Your task to perform on an android device: all mails in gmail Image 0: 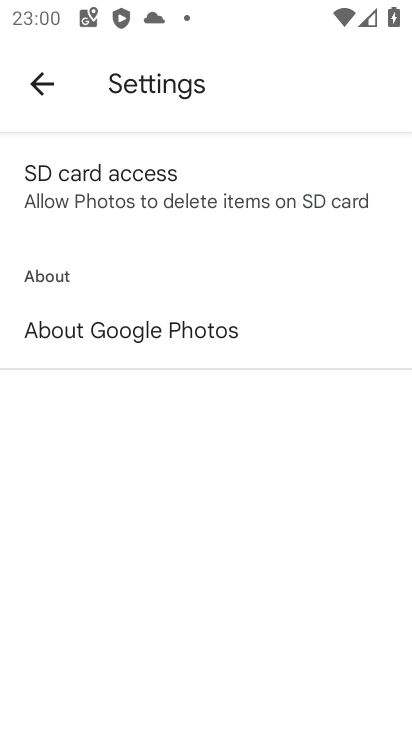
Step 0: press home button
Your task to perform on an android device: all mails in gmail Image 1: 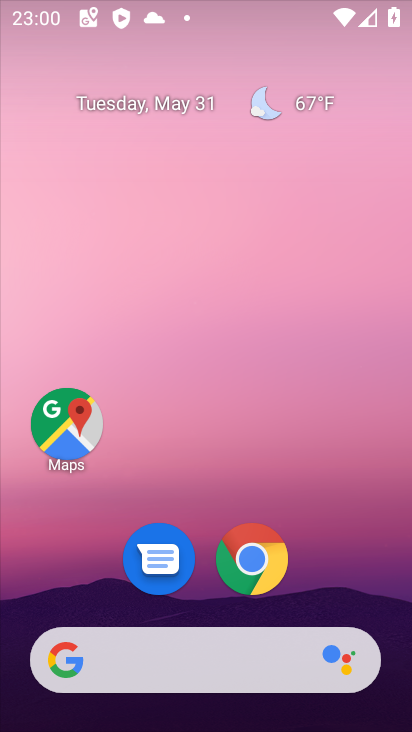
Step 1: drag from (331, 584) to (323, 71)
Your task to perform on an android device: all mails in gmail Image 2: 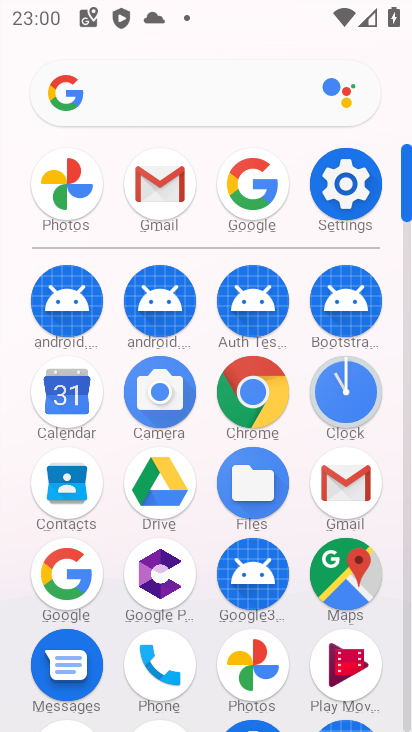
Step 2: click (160, 179)
Your task to perform on an android device: all mails in gmail Image 3: 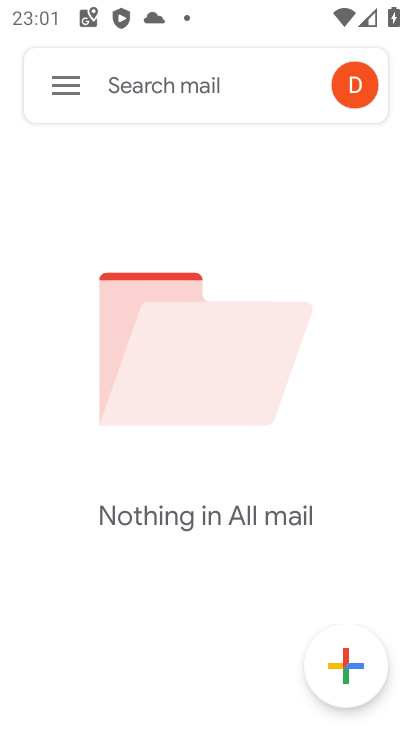
Step 3: task complete